Your task to perform on an android device: Open Google Image 0: 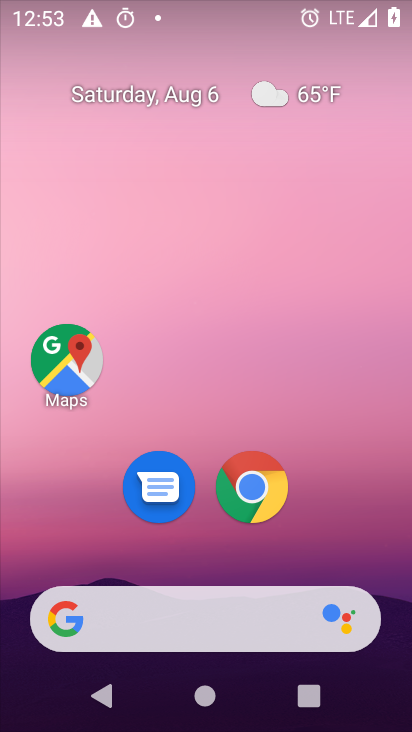
Step 0: drag from (204, 487) to (164, 42)
Your task to perform on an android device: Open Google Image 1: 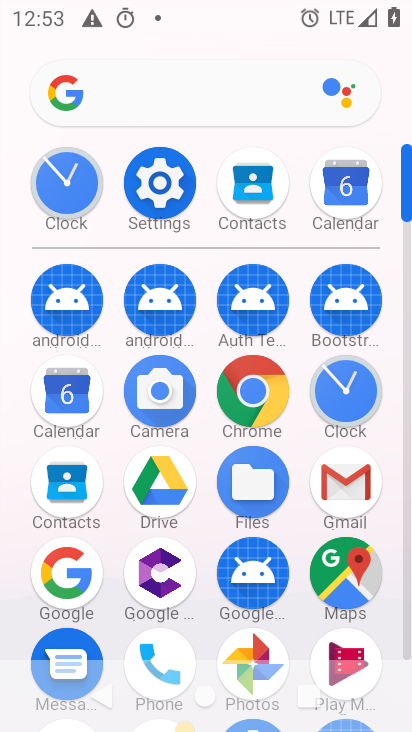
Step 1: click (61, 571)
Your task to perform on an android device: Open Google Image 2: 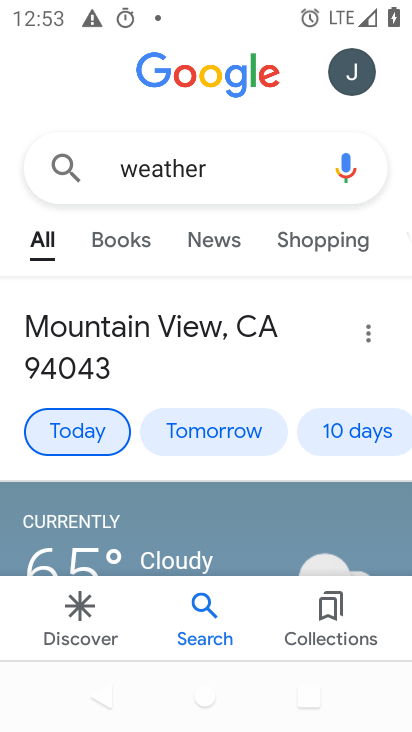
Step 2: task complete